Your task to perform on an android device: Go to Amazon Image 0: 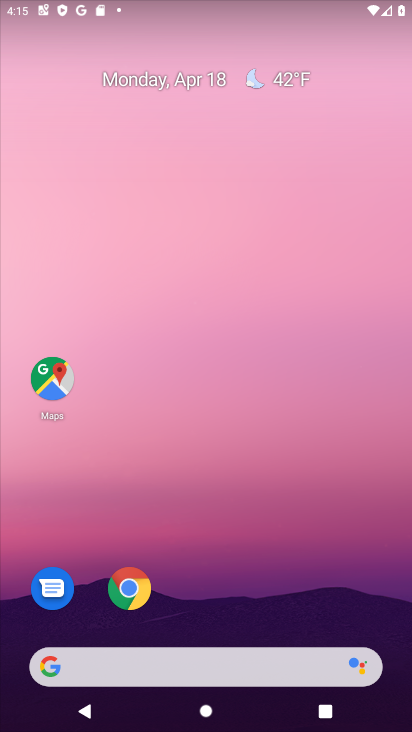
Step 0: drag from (185, 548) to (186, 127)
Your task to perform on an android device: Go to Amazon Image 1: 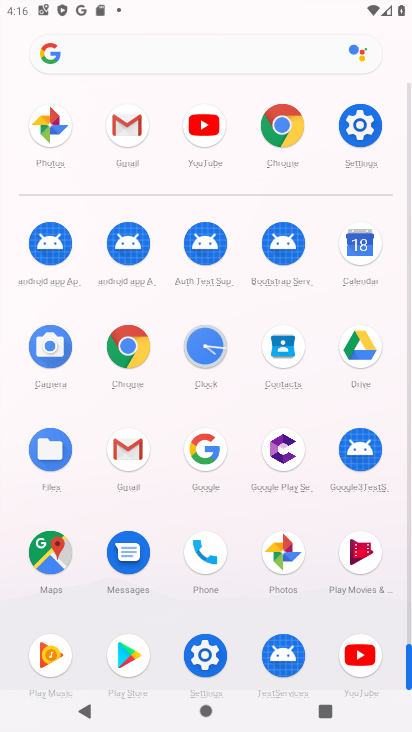
Step 1: click (276, 133)
Your task to perform on an android device: Go to Amazon Image 2: 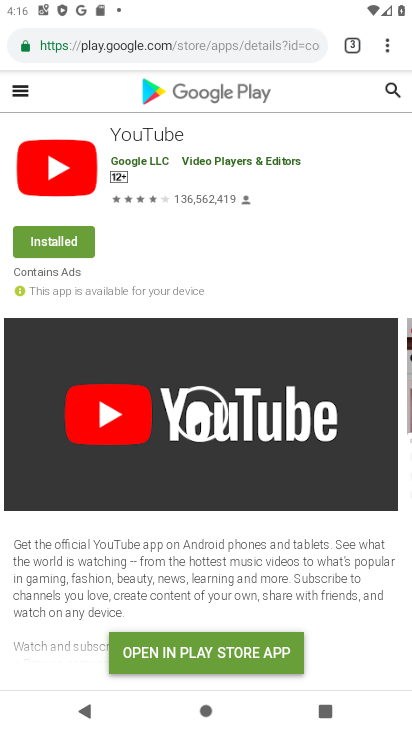
Step 2: click (279, 46)
Your task to perform on an android device: Go to Amazon Image 3: 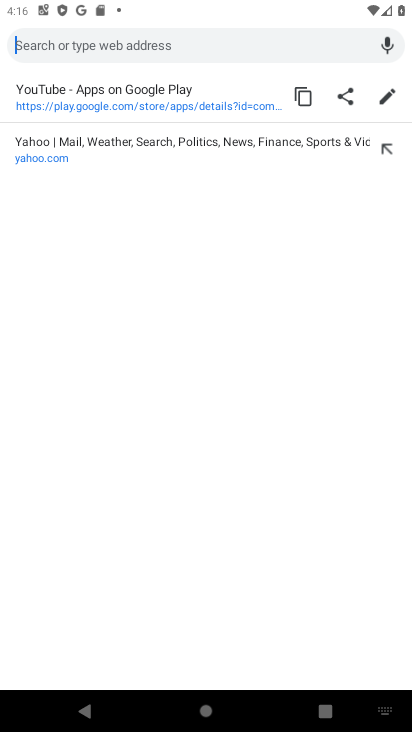
Step 3: type "amazon"
Your task to perform on an android device: Go to Amazon Image 4: 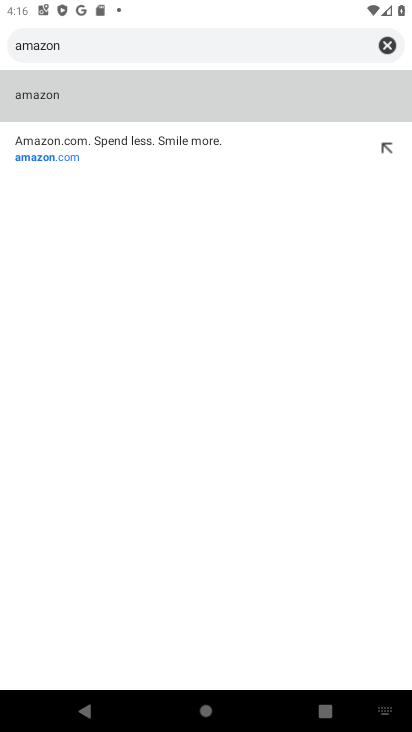
Step 4: click (54, 101)
Your task to perform on an android device: Go to Amazon Image 5: 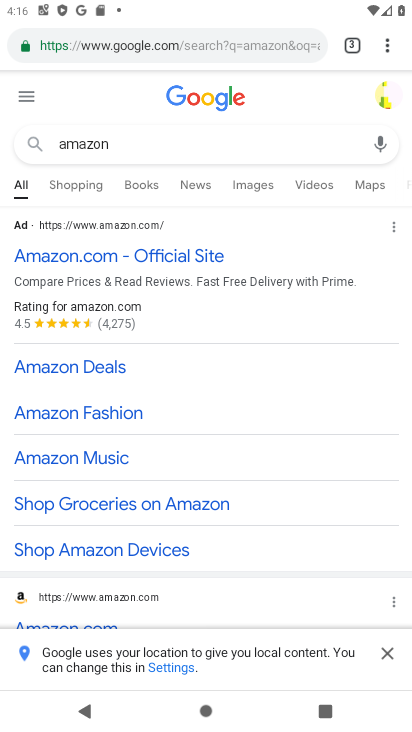
Step 5: click (47, 264)
Your task to perform on an android device: Go to Amazon Image 6: 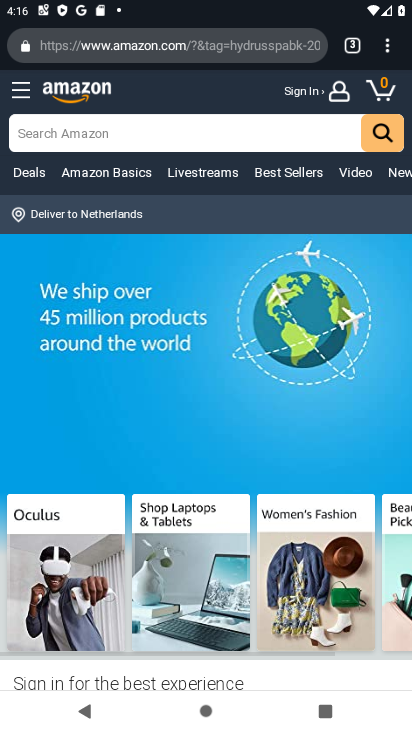
Step 6: task complete